Your task to perform on an android device: Go to Google maps Image 0: 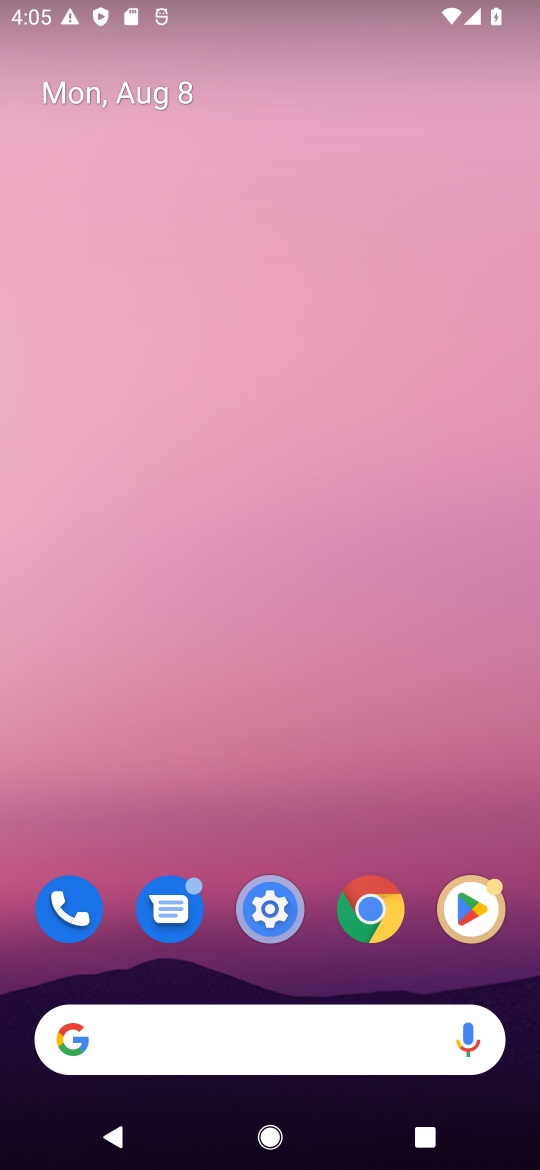
Step 0: drag from (313, 1035) to (457, 324)
Your task to perform on an android device: Go to Google maps Image 1: 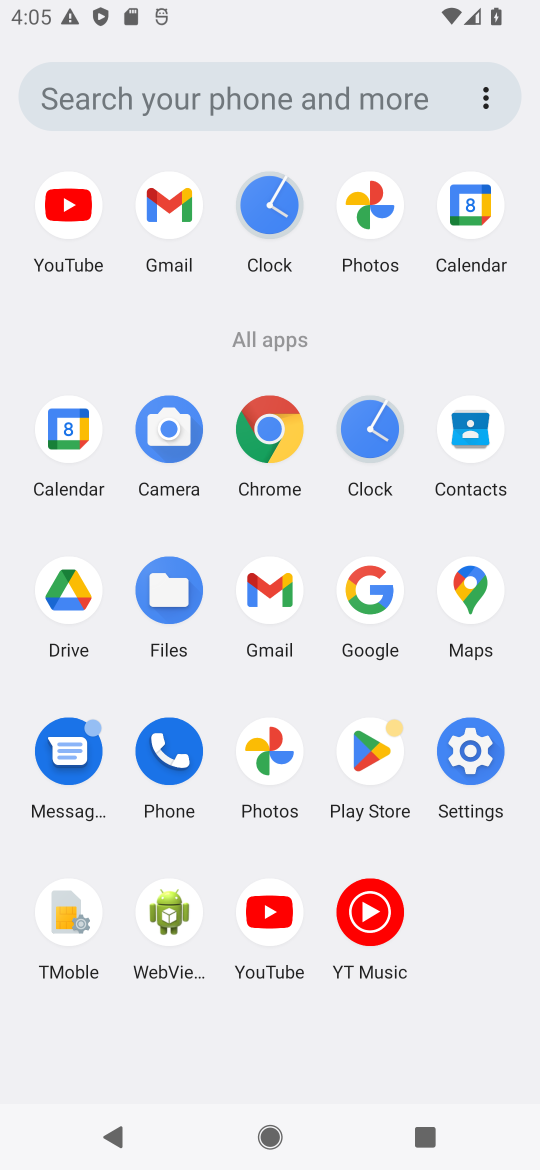
Step 1: click (468, 598)
Your task to perform on an android device: Go to Google maps Image 2: 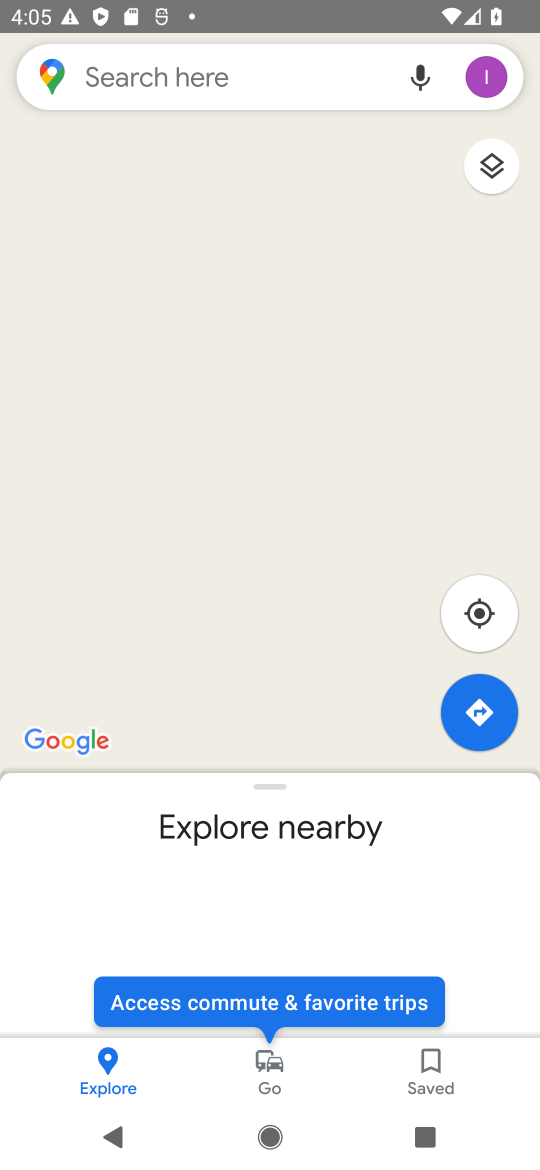
Step 2: task complete